Your task to perform on an android device: Go to Google maps Image 0: 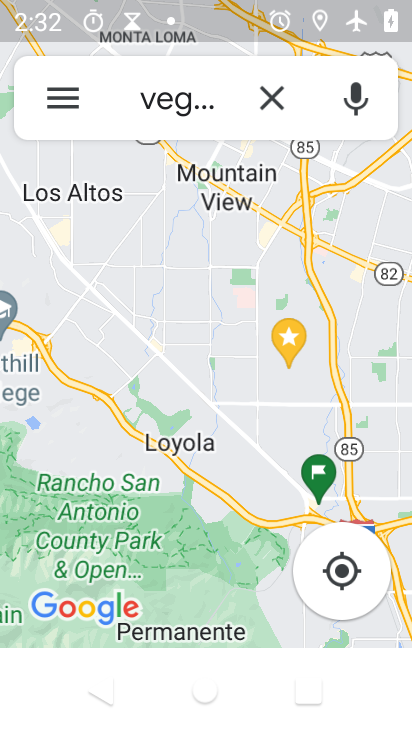
Step 0: task complete